Your task to perform on an android device: Go to display settings Image 0: 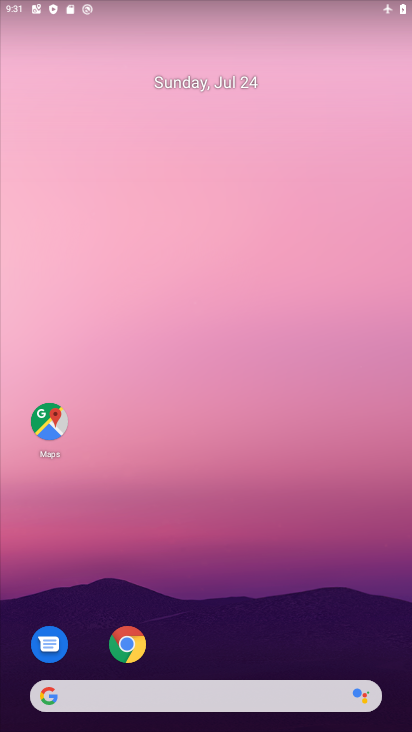
Step 0: drag from (283, 602) to (264, 126)
Your task to perform on an android device: Go to display settings Image 1: 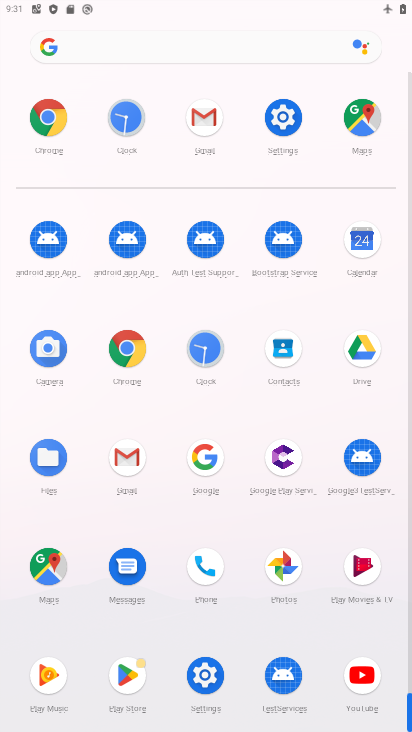
Step 1: click (209, 672)
Your task to perform on an android device: Go to display settings Image 2: 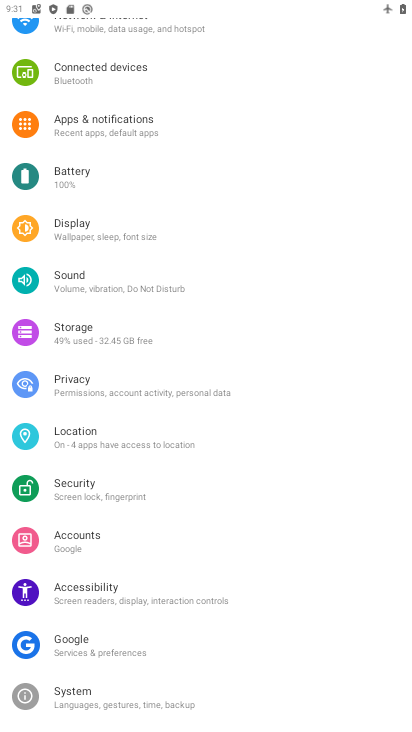
Step 2: click (64, 225)
Your task to perform on an android device: Go to display settings Image 3: 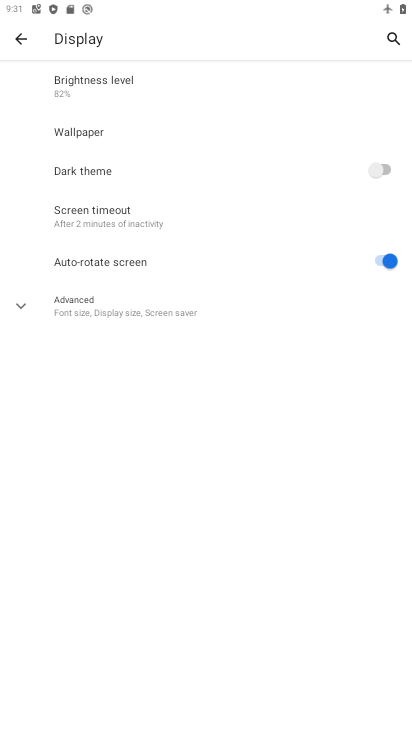
Step 3: task complete